Your task to perform on an android device: Open Wikipedia Image 0: 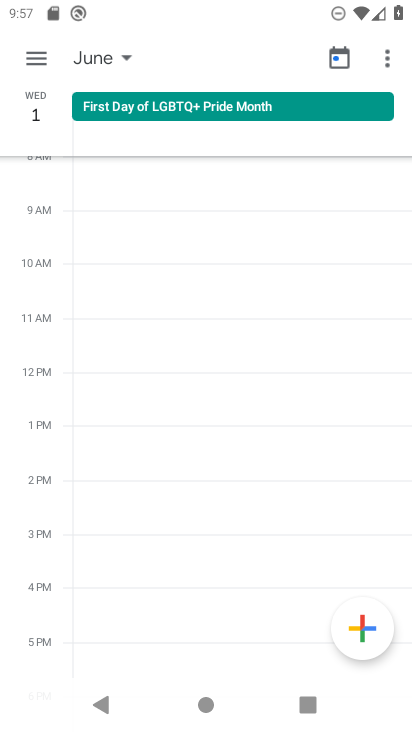
Step 0: press home button
Your task to perform on an android device: Open Wikipedia Image 1: 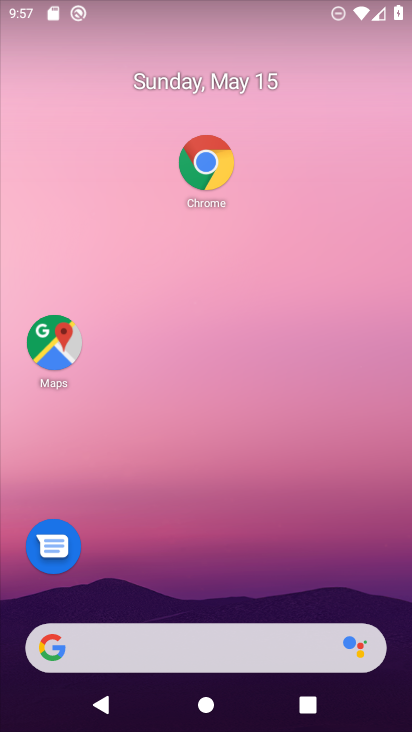
Step 1: drag from (213, 616) to (240, 279)
Your task to perform on an android device: Open Wikipedia Image 2: 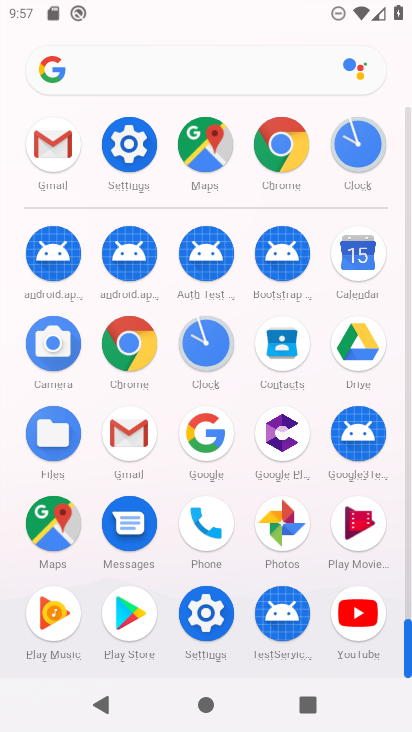
Step 2: click (284, 145)
Your task to perform on an android device: Open Wikipedia Image 3: 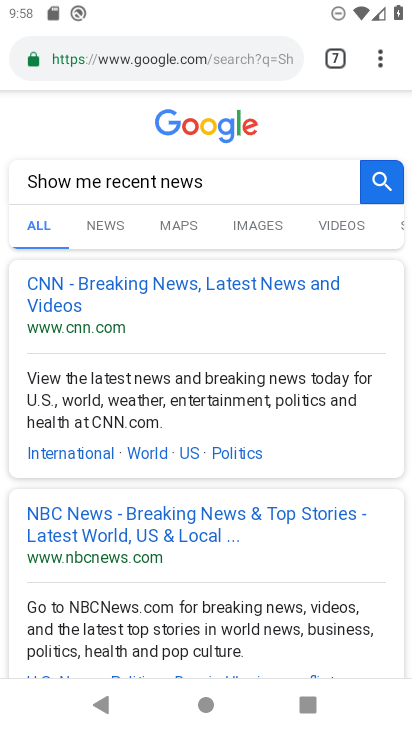
Step 3: click (366, 53)
Your task to perform on an android device: Open Wikipedia Image 4: 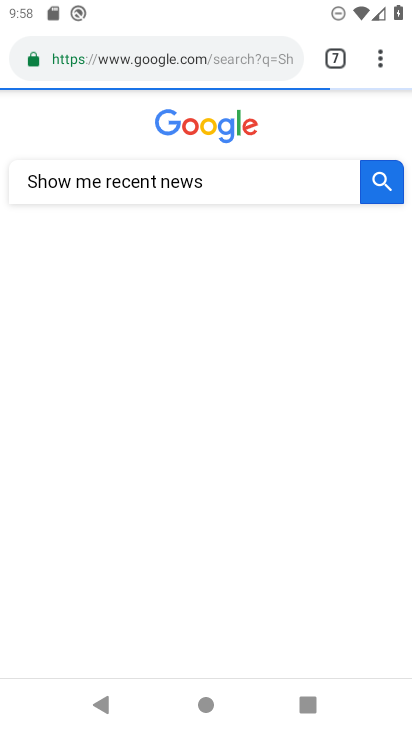
Step 4: click (373, 64)
Your task to perform on an android device: Open Wikipedia Image 5: 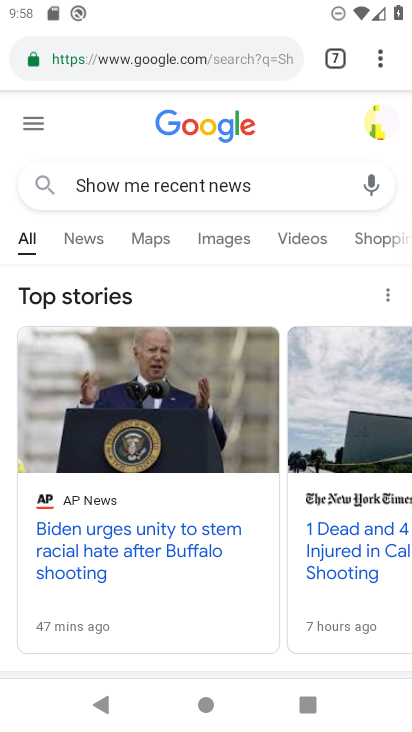
Step 5: click (364, 54)
Your task to perform on an android device: Open Wikipedia Image 6: 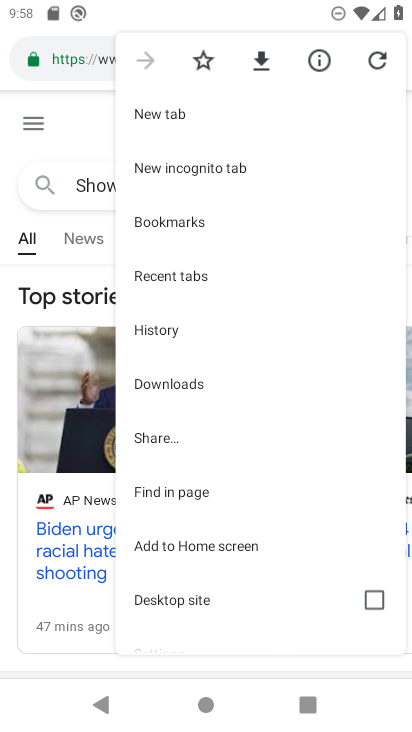
Step 6: click (145, 115)
Your task to perform on an android device: Open Wikipedia Image 7: 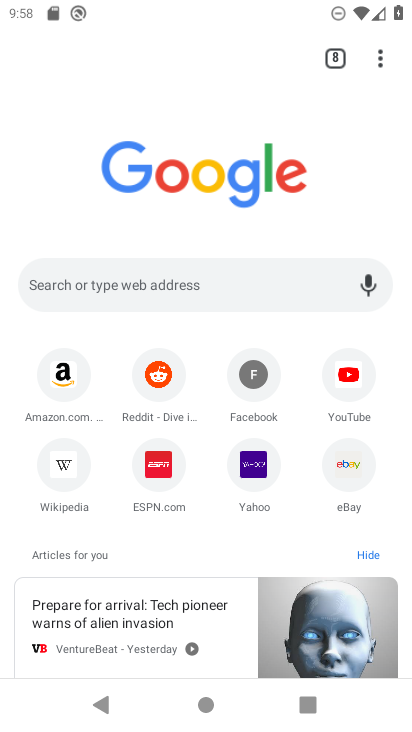
Step 7: click (67, 461)
Your task to perform on an android device: Open Wikipedia Image 8: 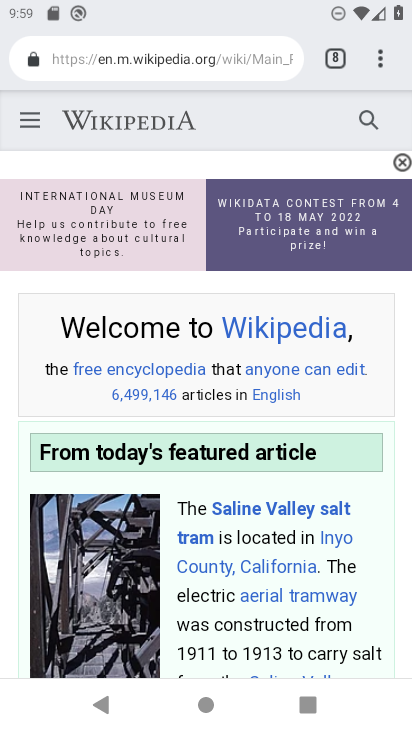
Step 8: task complete